Your task to perform on an android device: search for starred emails in the gmail app Image 0: 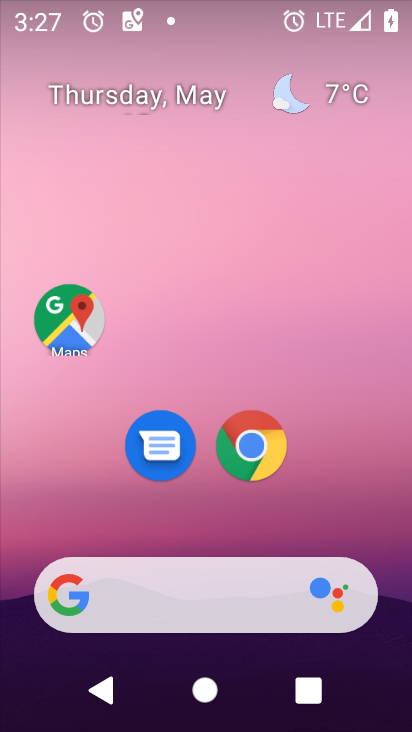
Step 0: drag from (358, 544) to (375, 0)
Your task to perform on an android device: search for starred emails in the gmail app Image 1: 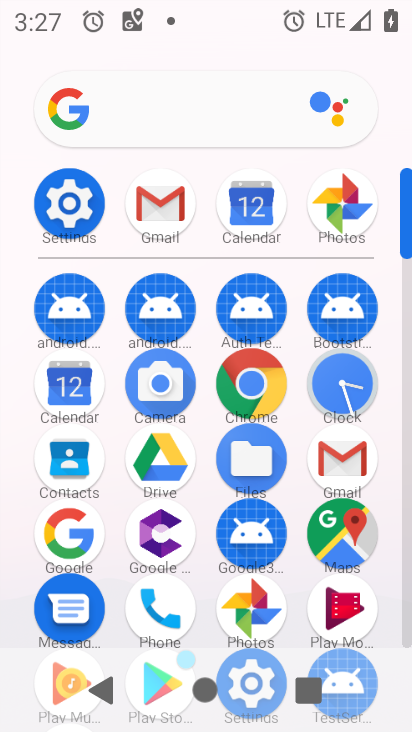
Step 1: click (160, 213)
Your task to perform on an android device: search for starred emails in the gmail app Image 2: 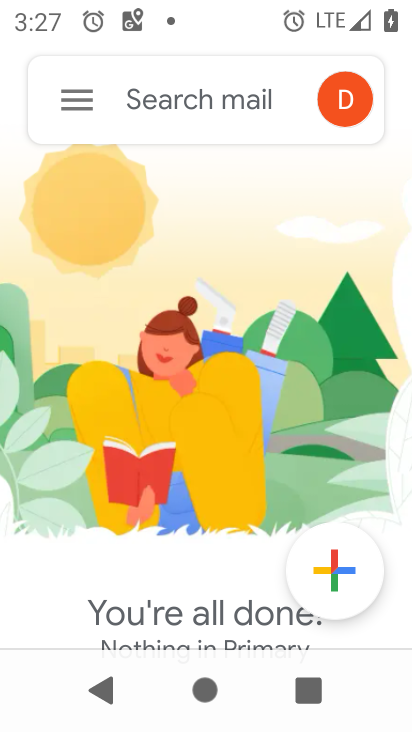
Step 2: click (74, 101)
Your task to perform on an android device: search for starred emails in the gmail app Image 3: 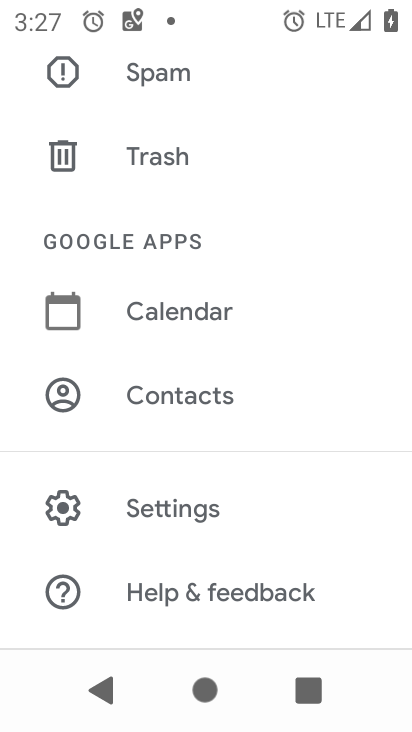
Step 3: drag from (299, 175) to (307, 668)
Your task to perform on an android device: search for starred emails in the gmail app Image 4: 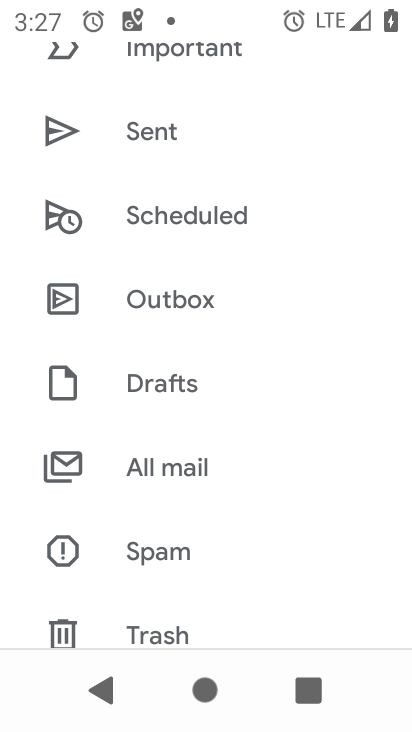
Step 4: drag from (288, 295) to (306, 642)
Your task to perform on an android device: search for starred emails in the gmail app Image 5: 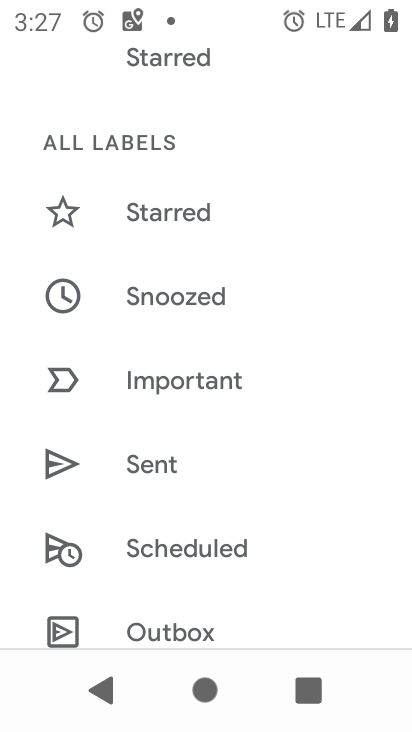
Step 5: drag from (288, 282) to (304, 709)
Your task to perform on an android device: search for starred emails in the gmail app Image 6: 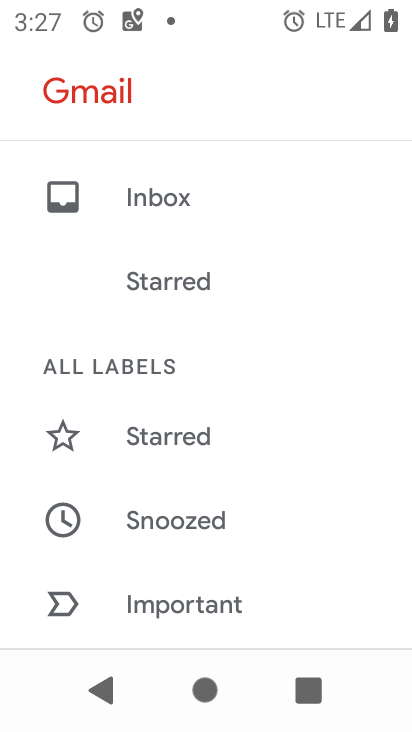
Step 6: click (155, 444)
Your task to perform on an android device: search for starred emails in the gmail app Image 7: 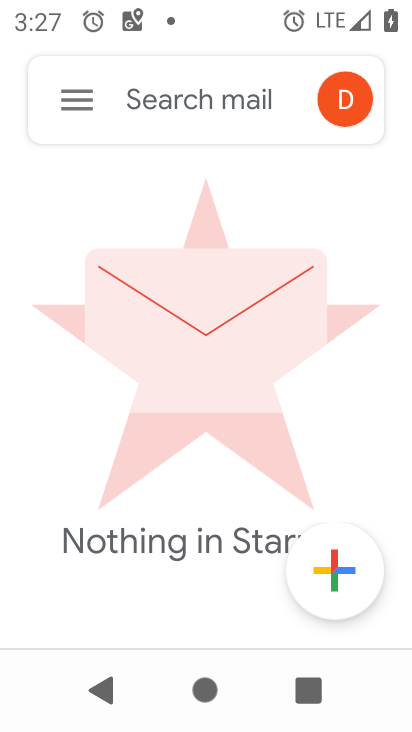
Step 7: task complete